Your task to perform on an android device: Open my contact list Image 0: 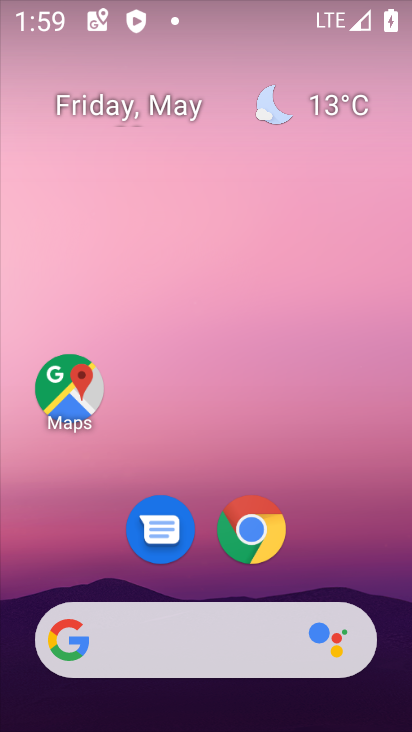
Step 0: drag from (341, 519) to (343, 234)
Your task to perform on an android device: Open my contact list Image 1: 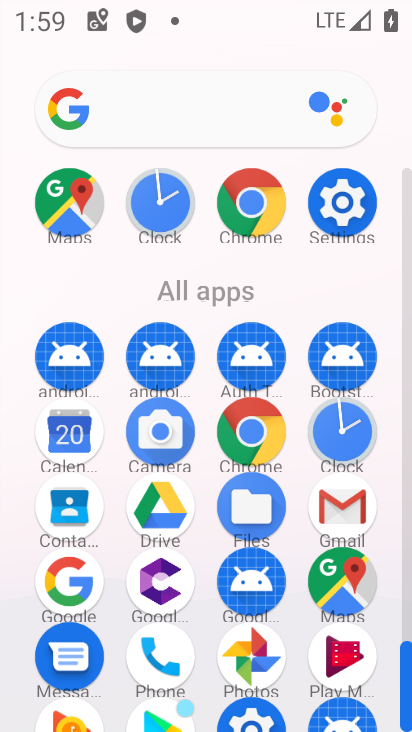
Step 1: click (59, 512)
Your task to perform on an android device: Open my contact list Image 2: 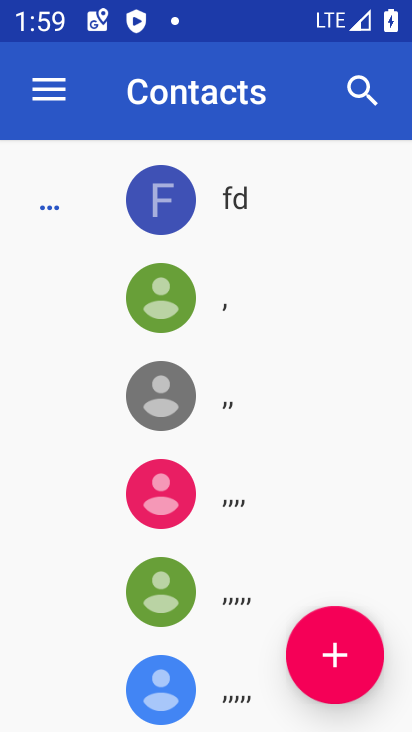
Step 2: task complete